Your task to perform on an android device: Open settings on Google Maps Image 0: 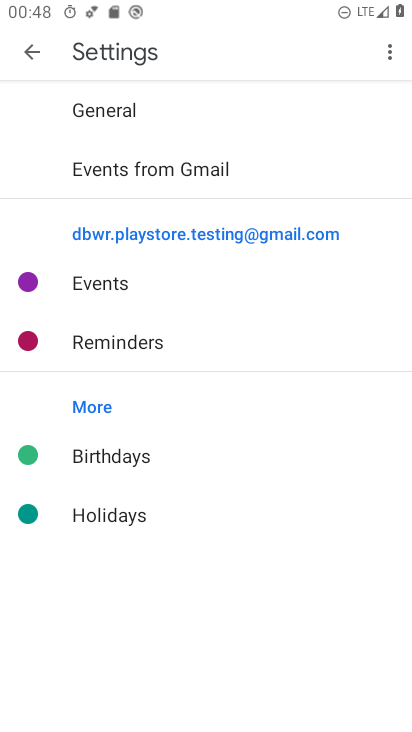
Step 0: press home button
Your task to perform on an android device: Open settings on Google Maps Image 1: 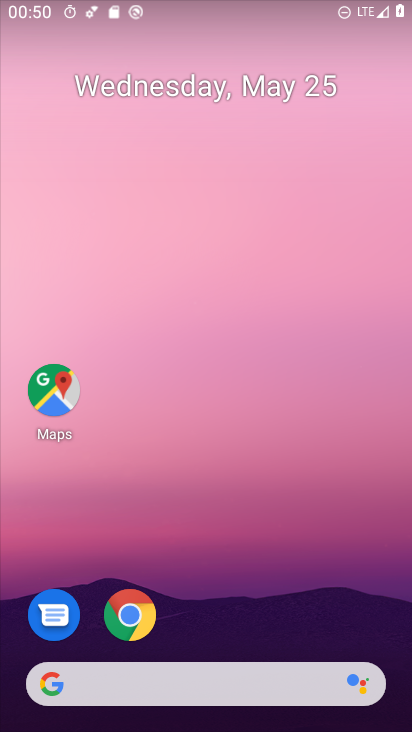
Step 1: drag from (226, 716) to (401, 23)
Your task to perform on an android device: Open settings on Google Maps Image 2: 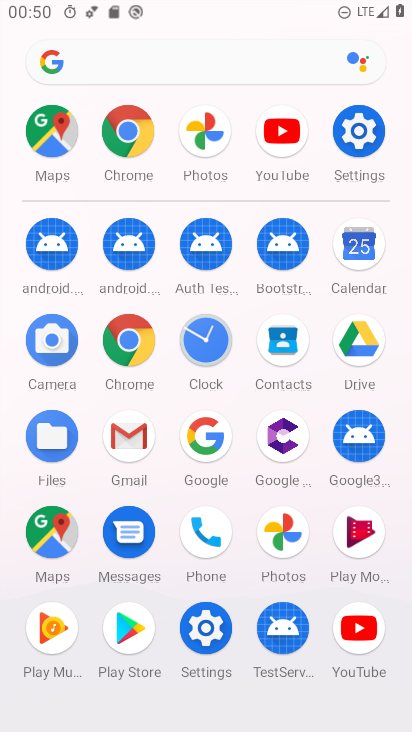
Step 2: click (48, 59)
Your task to perform on an android device: Open settings on Google Maps Image 3: 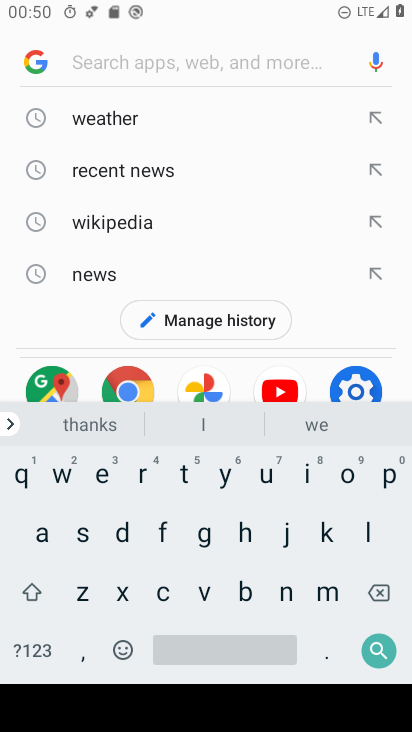
Step 3: click (57, 378)
Your task to perform on an android device: Open settings on Google Maps Image 4: 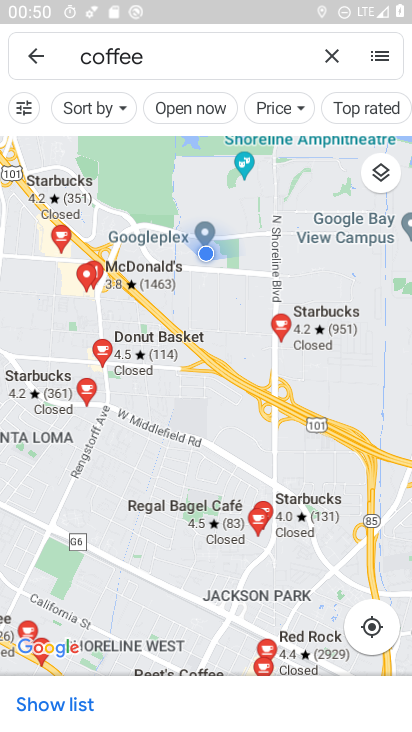
Step 4: click (30, 51)
Your task to perform on an android device: Open settings on Google Maps Image 5: 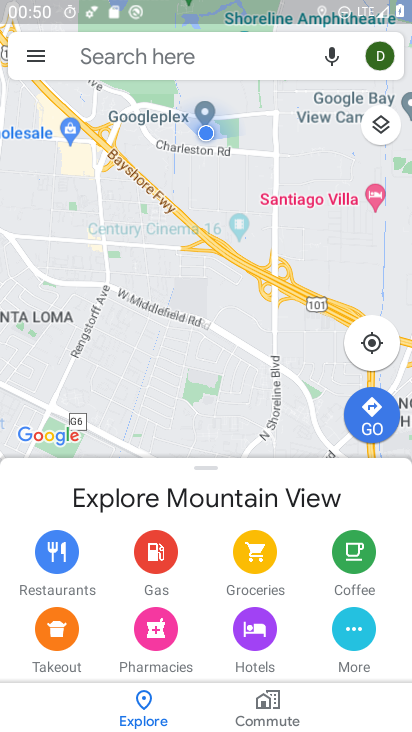
Step 5: click (31, 54)
Your task to perform on an android device: Open settings on Google Maps Image 6: 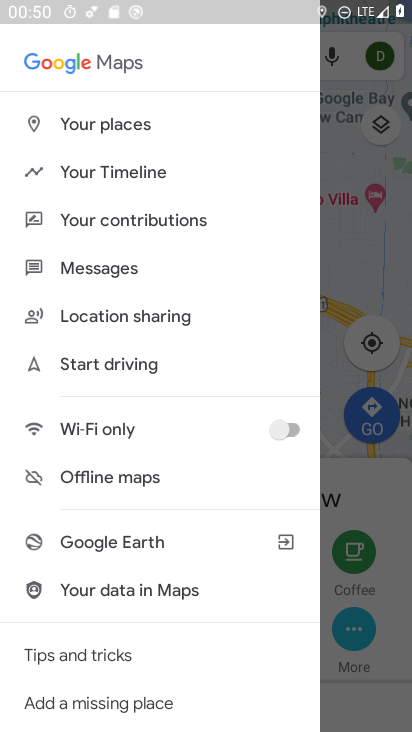
Step 6: drag from (97, 619) to (225, 448)
Your task to perform on an android device: Open settings on Google Maps Image 7: 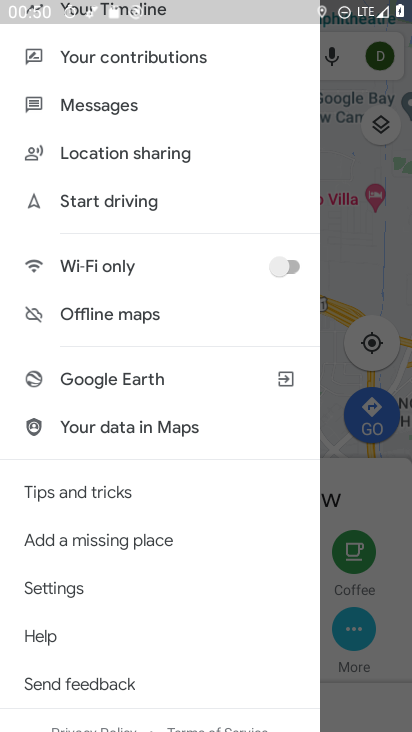
Step 7: click (84, 590)
Your task to perform on an android device: Open settings on Google Maps Image 8: 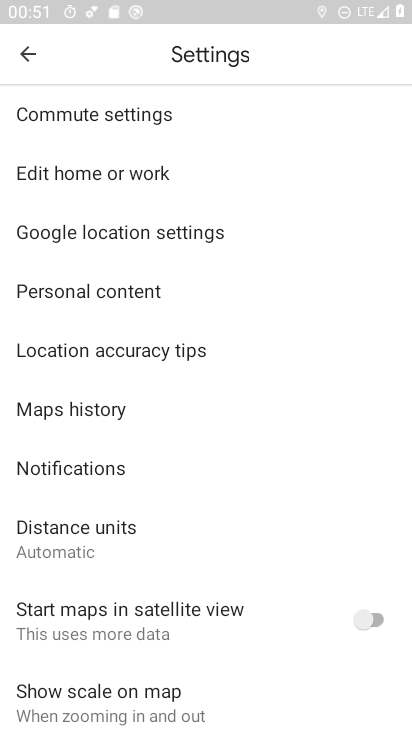
Step 8: task complete